Your task to perform on an android device: Open accessibility settings Image 0: 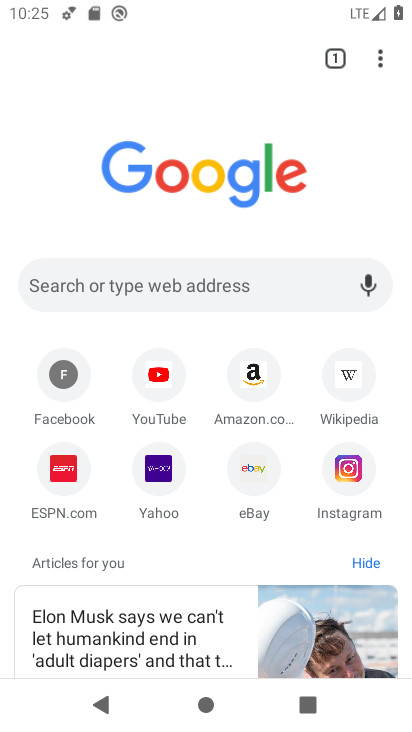
Step 0: press home button
Your task to perform on an android device: Open accessibility settings Image 1: 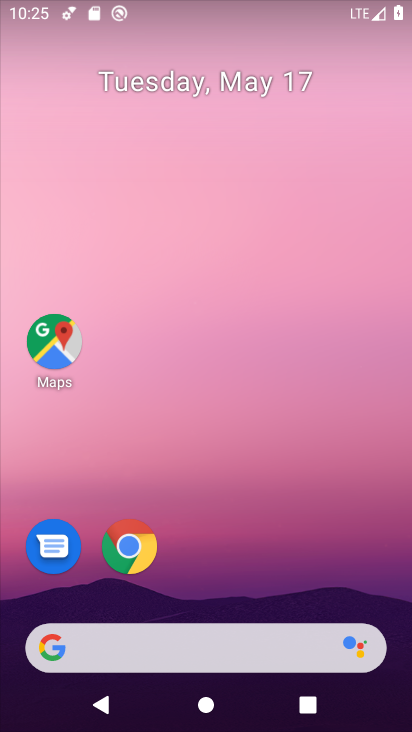
Step 1: drag from (219, 585) to (285, 69)
Your task to perform on an android device: Open accessibility settings Image 2: 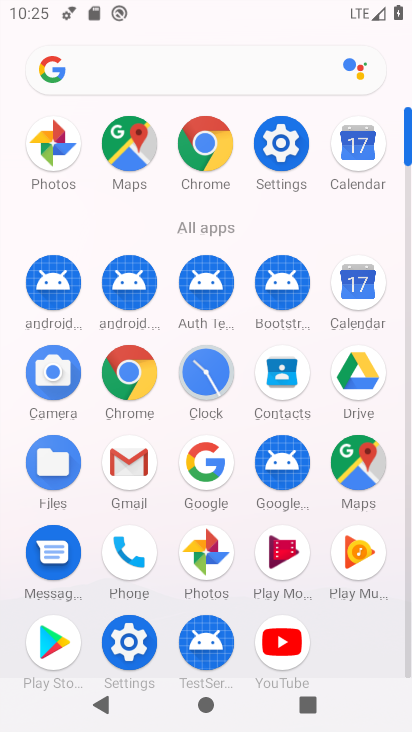
Step 2: click (274, 141)
Your task to perform on an android device: Open accessibility settings Image 3: 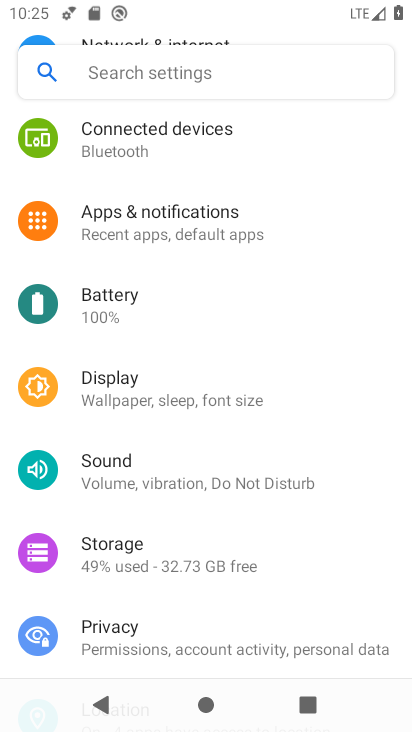
Step 3: drag from (165, 486) to (253, 134)
Your task to perform on an android device: Open accessibility settings Image 4: 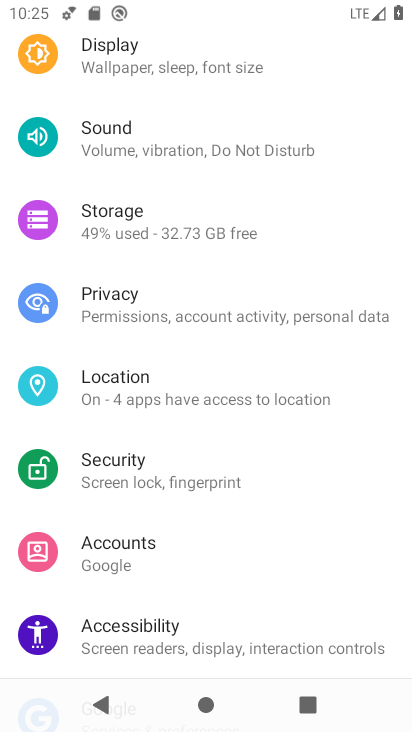
Step 4: drag from (165, 549) to (196, 367)
Your task to perform on an android device: Open accessibility settings Image 5: 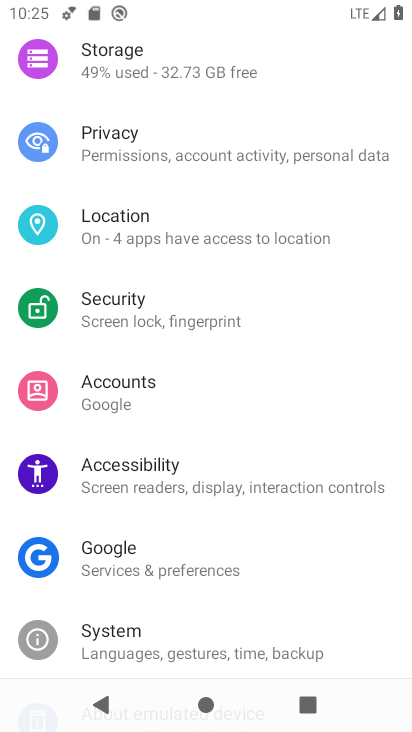
Step 5: click (146, 488)
Your task to perform on an android device: Open accessibility settings Image 6: 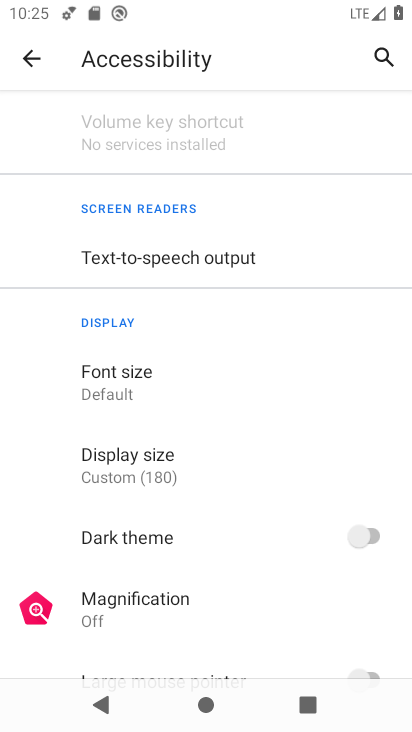
Step 6: task complete